Your task to perform on an android device: install app "eBay: The shopping marketplace" Image 0: 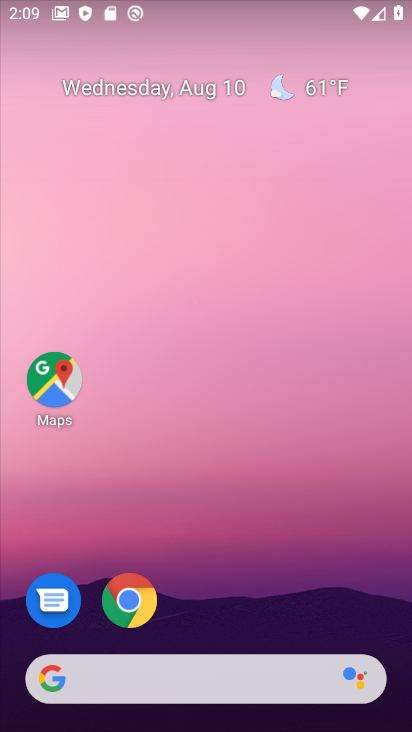
Step 0: drag from (180, 662) to (240, 87)
Your task to perform on an android device: install app "eBay: The shopping marketplace" Image 1: 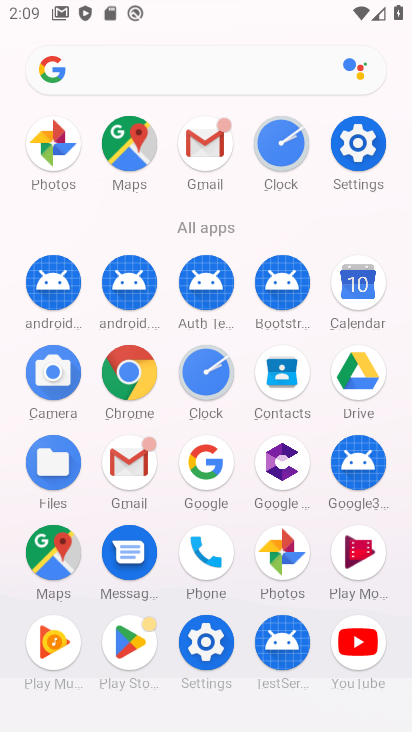
Step 1: click (128, 645)
Your task to perform on an android device: install app "eBay: The shopping marketplace" Image 2: 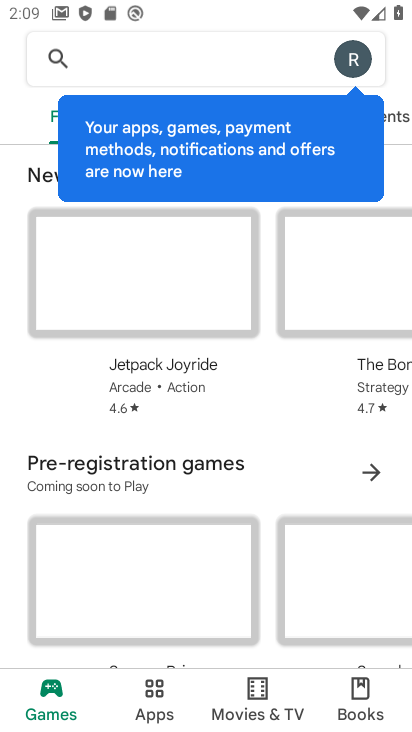
Step 2: click (232, 58)
Your task to perform on an android device: install app "eBay: The shopping marketplace" Image 3: 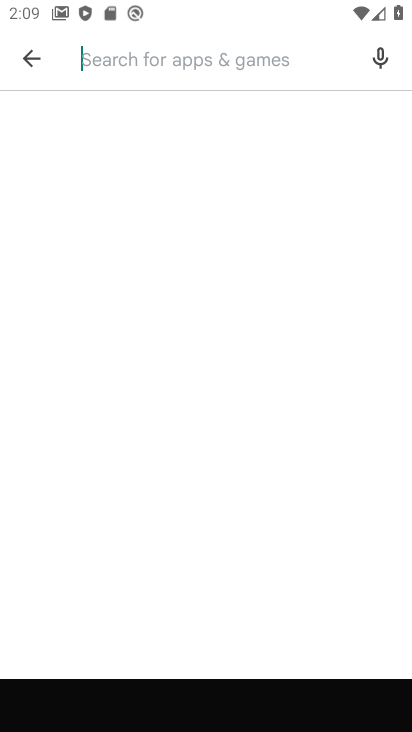
Step 3: click (183, 53)
Your task to perform on an android device: install app "eBay: The shopping marketplace" Image 4: 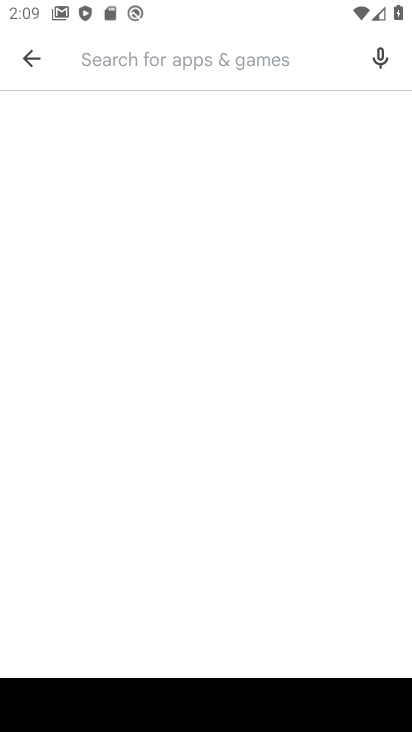
Step 4: type "ebay"
Your task to perform on an android device: install app "eBay: The shopping marketplace" Image 5: 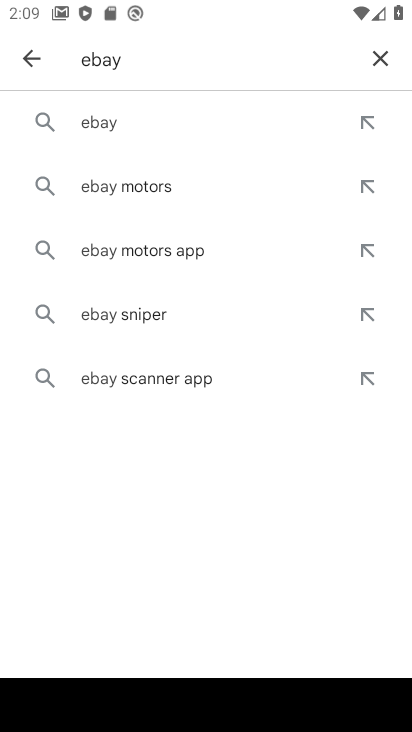
Step 5: click (178, 119)
Your task to perform on an android device: install app "eBay: The shopping marketplace" Image 6: 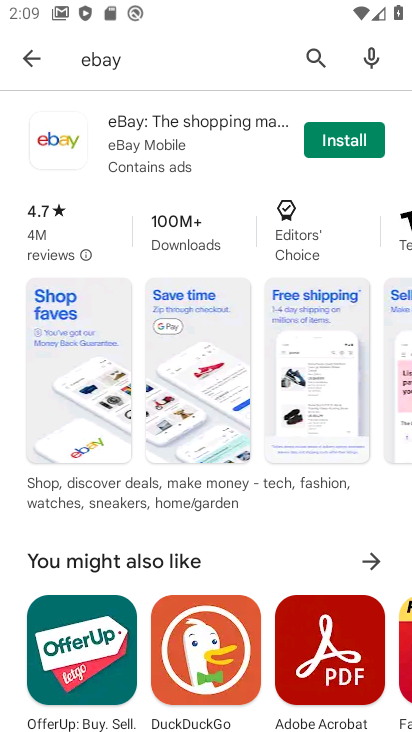
Step 6: click (332, 145)
Your task to perform on an android device: install app "eBay: The shopping marketplace" Image 7: 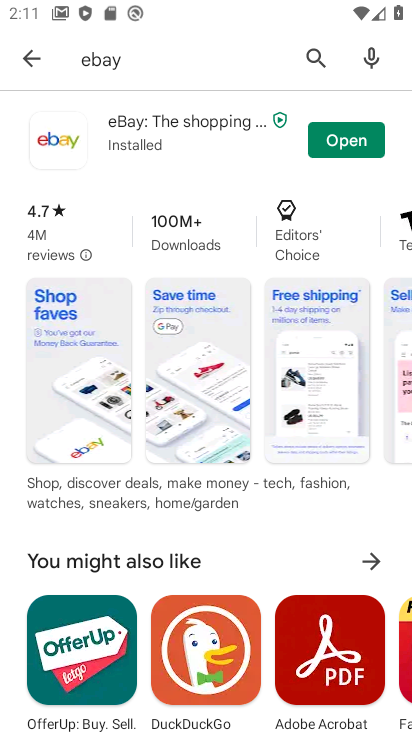
Step 7: click (349, 138)
Your task to perform on an android device: install app "eBay: The shopping marketplace" Image 8: 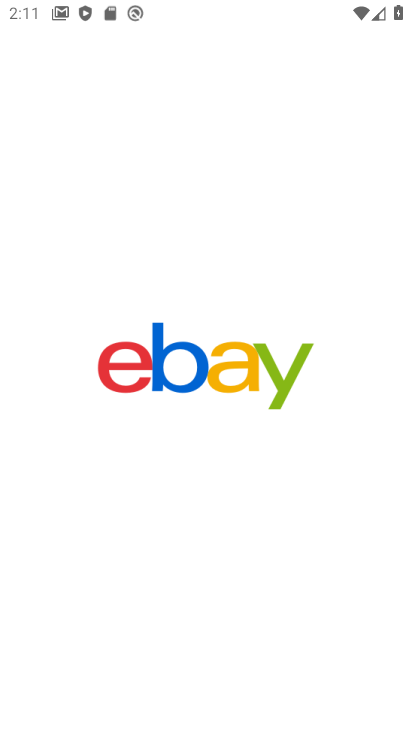
Step 8: task complete